Your task to perform on an android device: check storage Image 0: 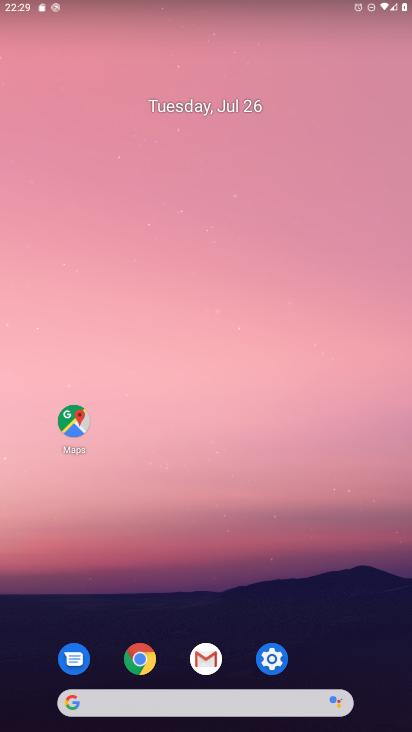
Step 0: click (278, 642)
Your task to perform on an android device: check storage Image 1: 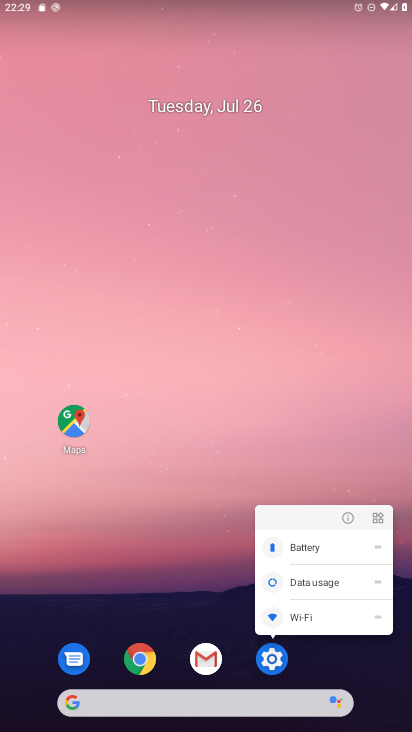
Step 1: click (204, 293)
Your task to perform on an android device: check storage Image 2: 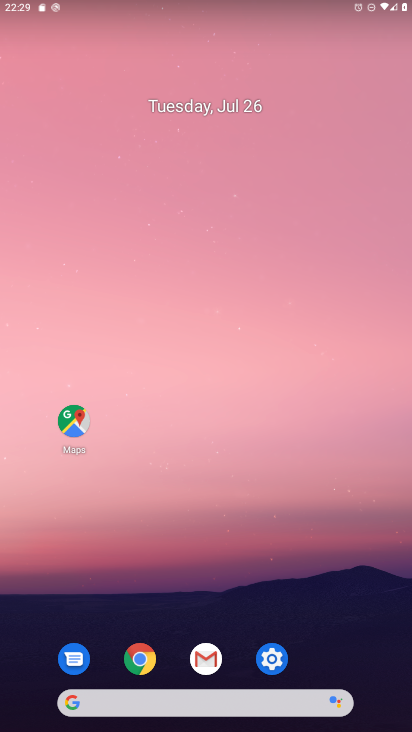
Step 2: click (269, 664)
Your task to perform on an android device: check storage Image 3: 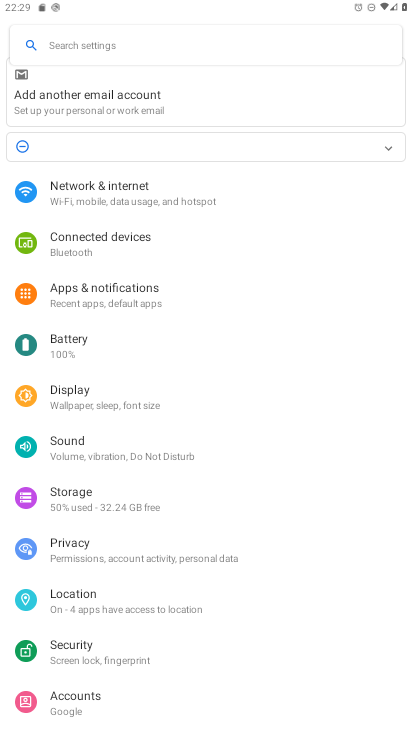
Step 3: click (125, 45)
Your task to perform on an android device: check storage Image 4: 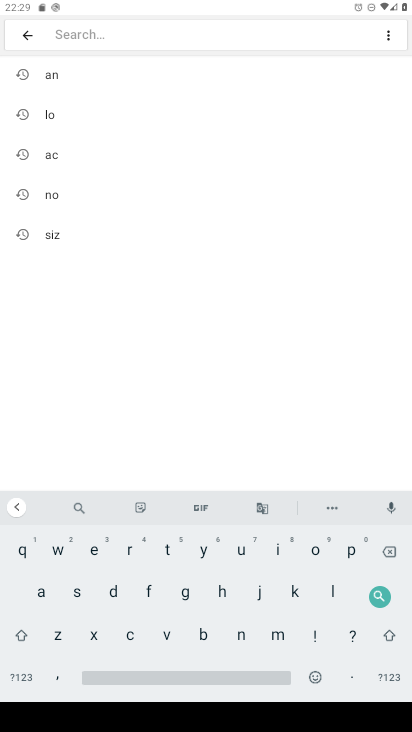
Step 4: click (79, 589)
Your task to perform on an android device: check storage Image 5: 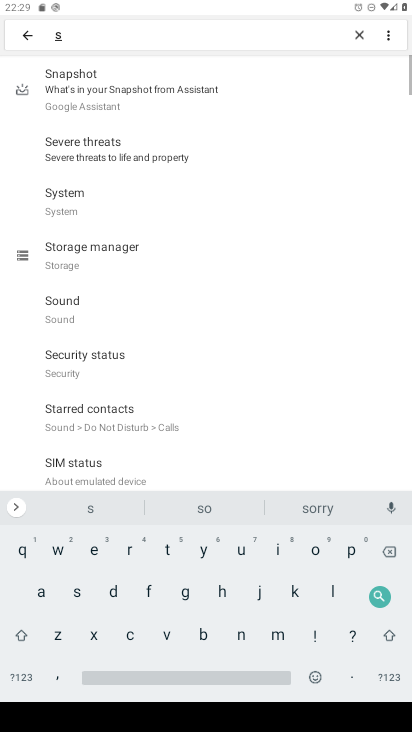
Step 5: click (167, 544)
Your task to perform on an android device: check storage Image 6: 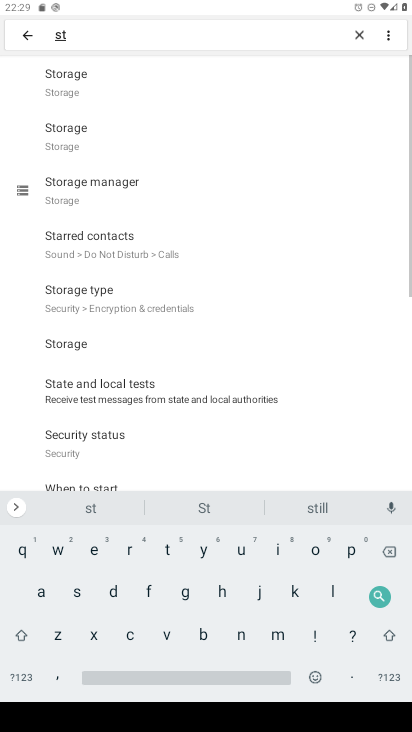
Step 6: click (96, 81)
Your task to perform on an android device: check storage Image 7: 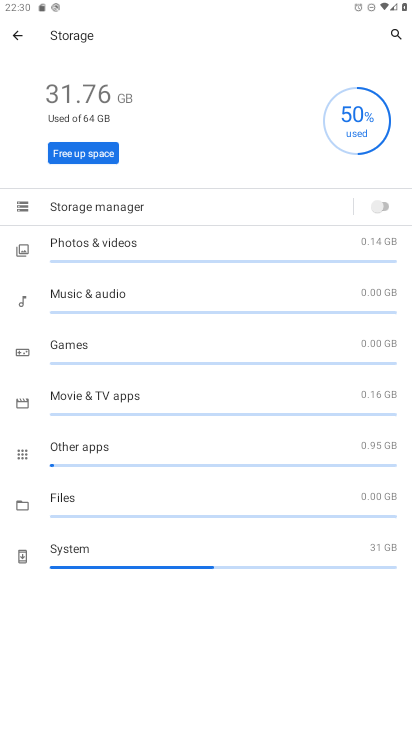
Step 7: task complete